Your task to perform on an android device: What's the weather going to be tomorrow? Image 0: 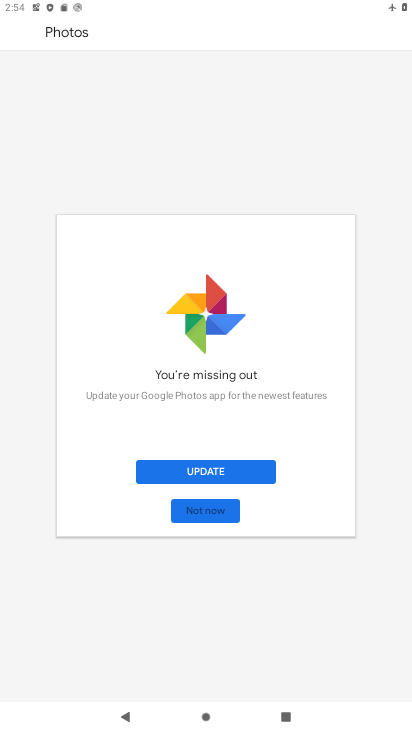
Step 0: press home button
Your task to perform on an android device: What's the weather going to be tomorrow? Image 1: 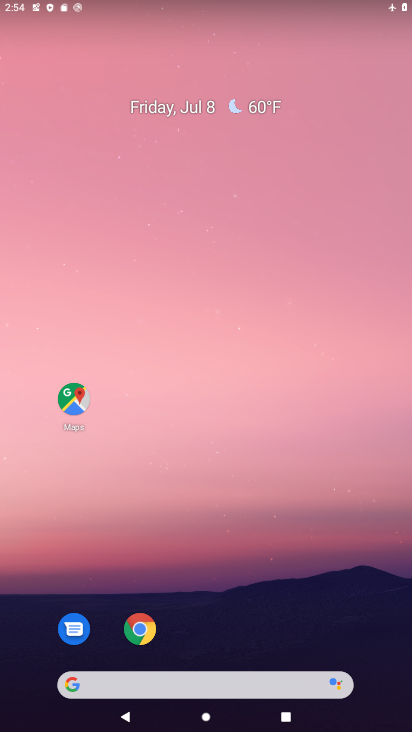
Step 1: drag from (231, 620) to (232, 213)
Your task to perform on an android device: What's the weather going to be tomorrow? Image 2: 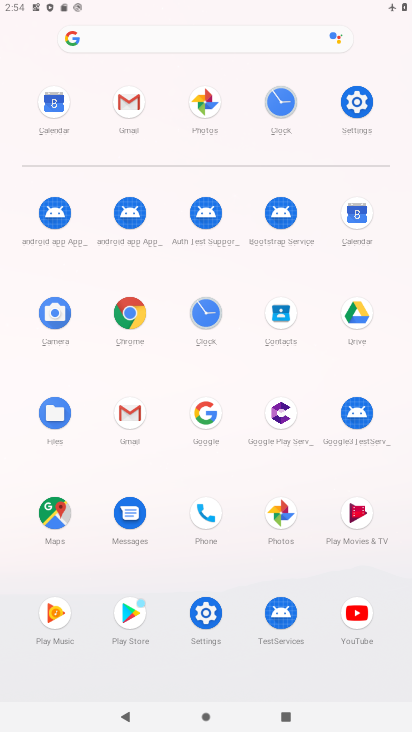
Step 2: click (209, 430)
Your task to perform on an android device: What's the weather going to be tomorrow? Image 3: 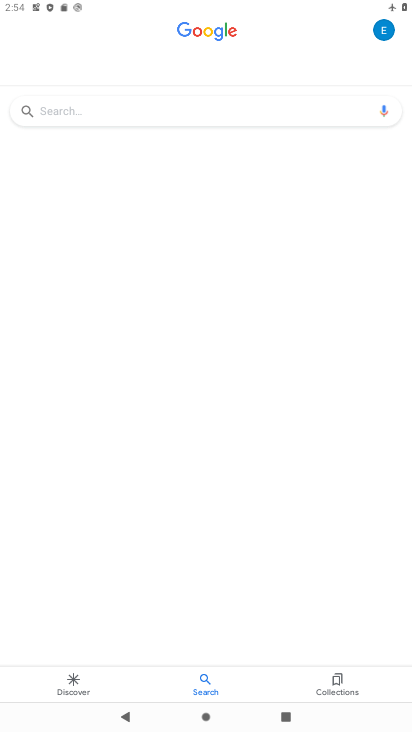
Step 3: click (165, 103)
Your task to perform on an android device: What's the weather going to be tomorrow? Image 4: 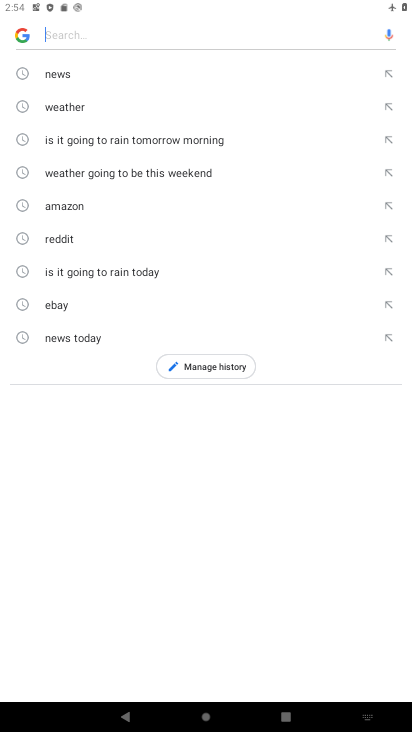
Step 4: click (73, 112)
Your task to perform on an android device: What's the weather going to be tomorrow? Image 5: 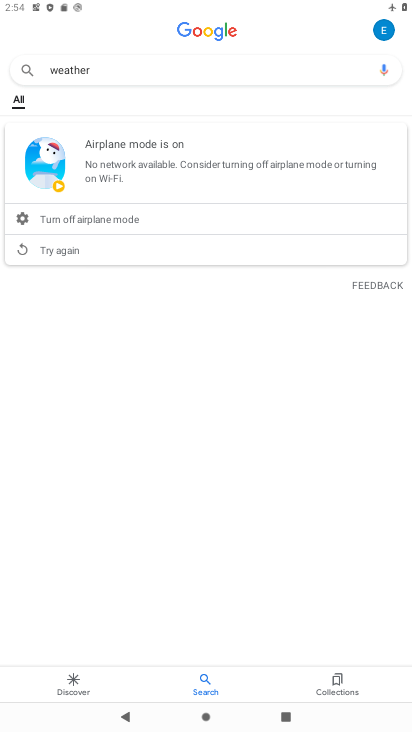
Step 5: task complete